Your task to perform on an android device: turn on improve location accuracy Image 0: 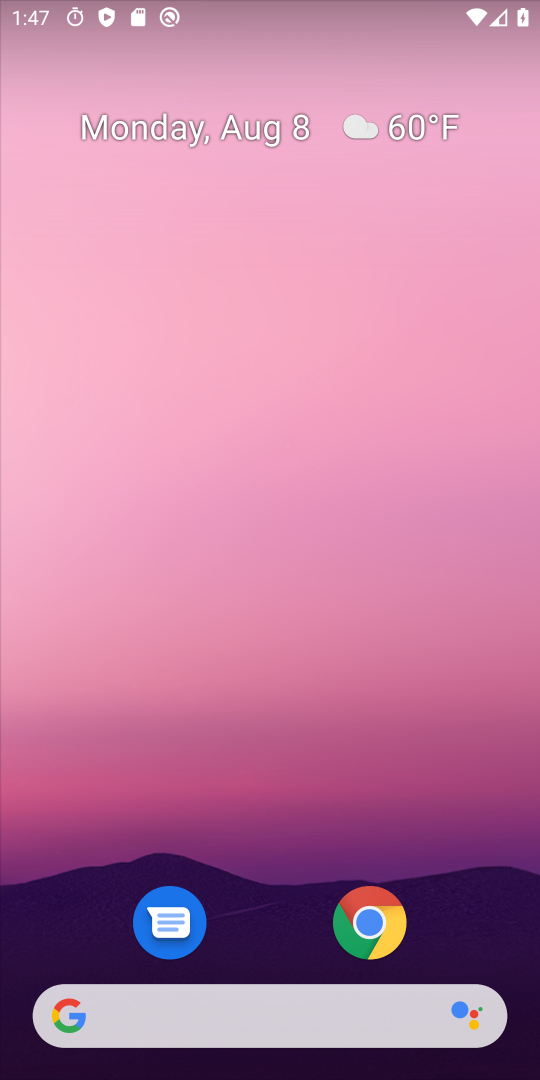
Step 0: drag from (261, 901) to (265, 244)
Your task to perform on an android device: turn on improve location accuracy Image 1: 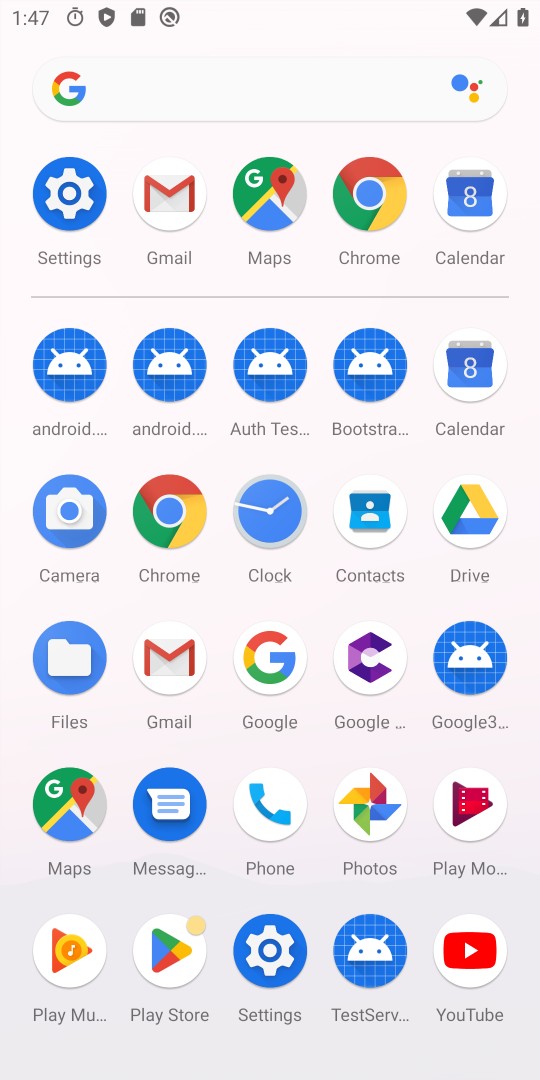
Step 1: click (270, 937)
Your task to perform on an android device: turn on improve location accuracy Image 2: 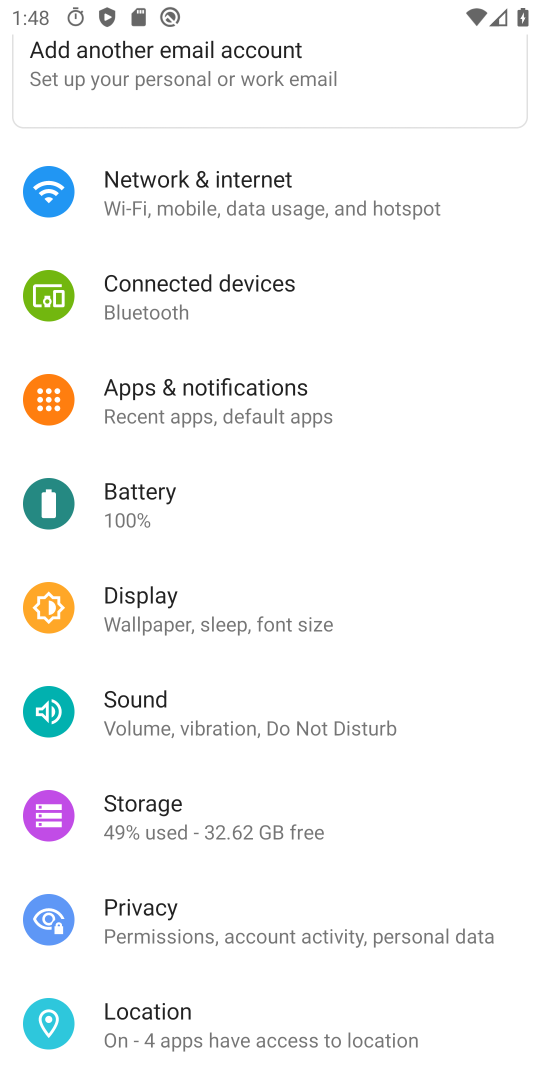
Step 2: click (187, 1033)
Your task to perform on an android device: turn on improve location accuracy Image 3: 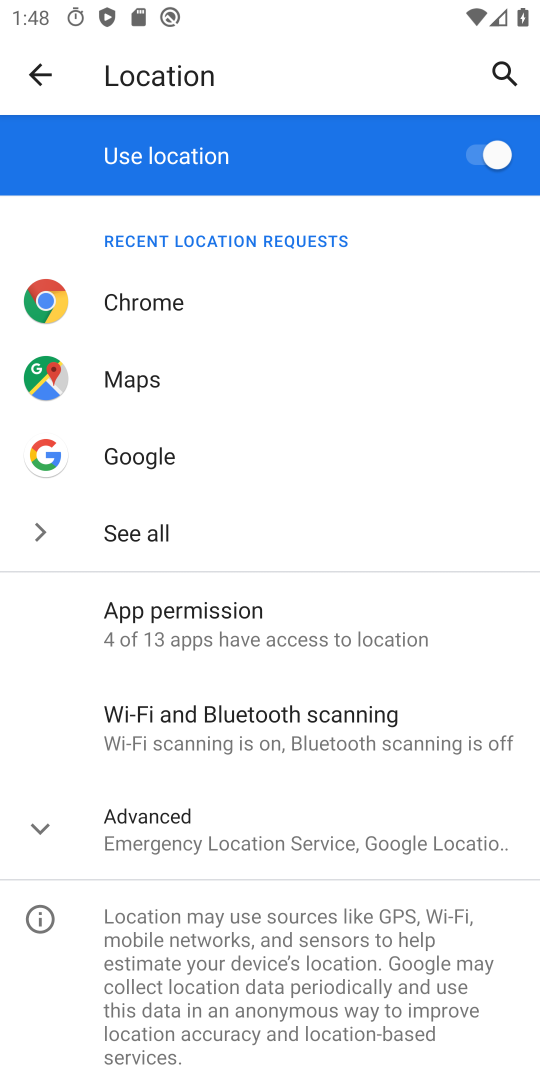
Step 3: click (206, 847)
Your task to perform on an android device: turn on improve location accuracy Image 4: 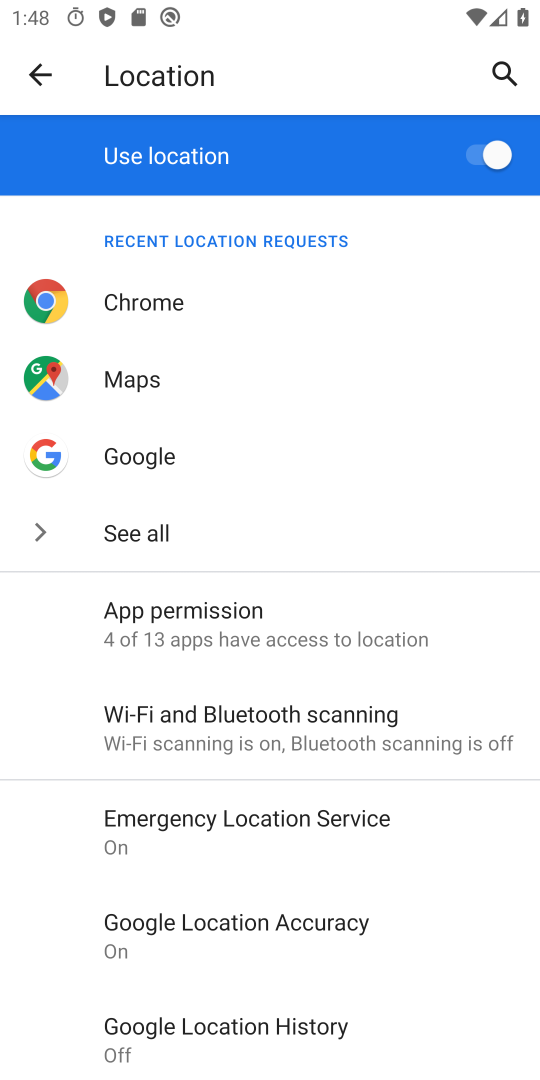
Step 4: click (308, 945)
Your task to perform on an android device: turn on improve location accuracy Image 5: 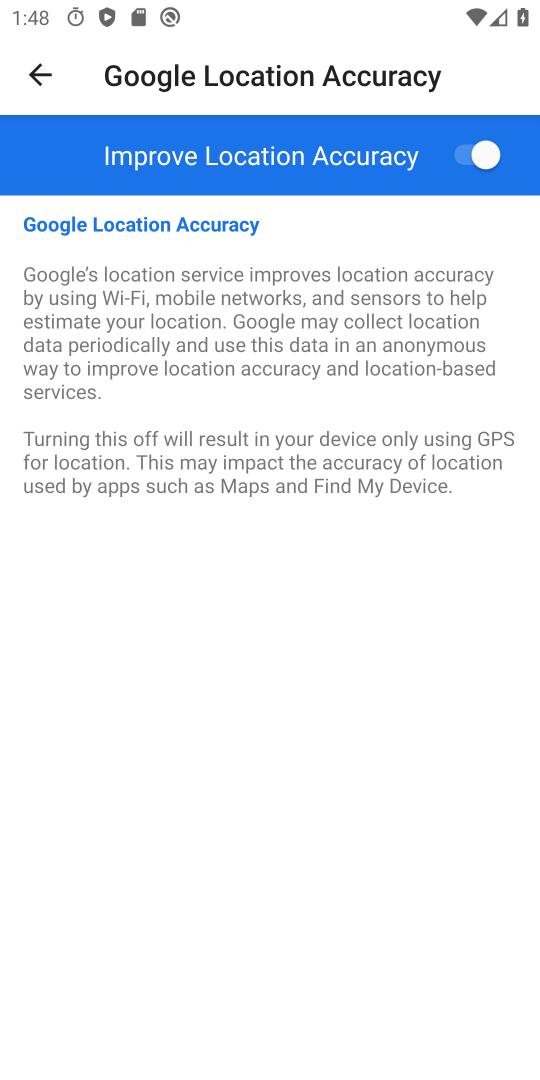
Step 5: task complete